Your task to perform on an android device: toggle sleep mode Image 0: 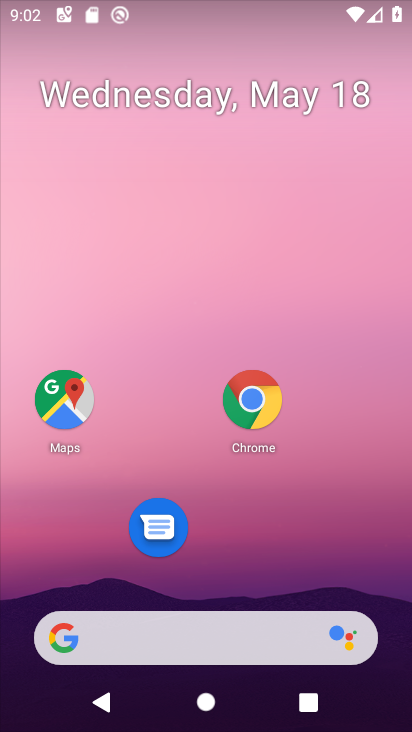
Step 0: press home button
Your task to perform on an android device: toggle sleep mode Image 1: 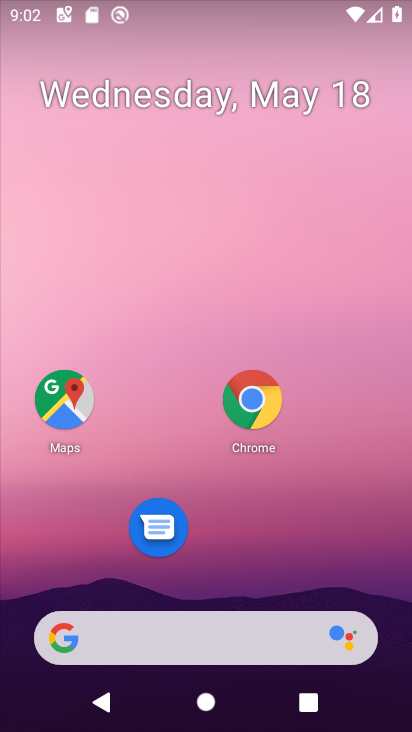
Step 1: drag from (268, 552) to (172, 223)
Your task to perform on an android device: toggle sleep mode Image 2: 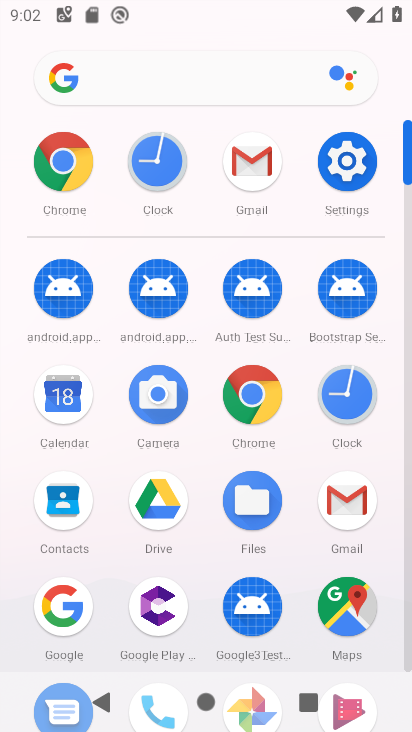
Step 2: click (351, 157)
Your task to perform on an android device: toggle sleep mode Image 3: 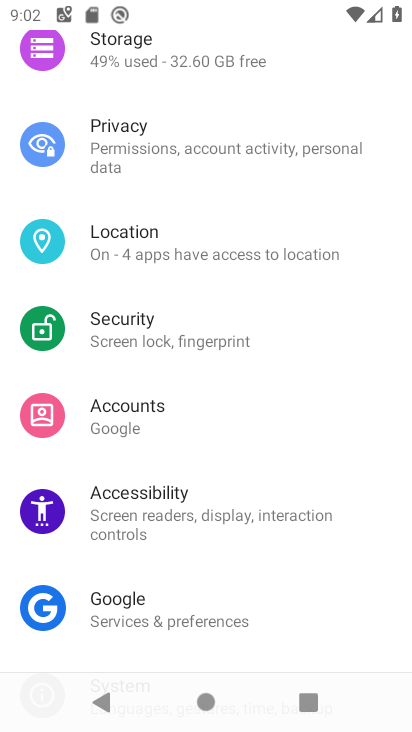
Step 3: task complete